Your task to perform on an android device: turn off location Image 0: 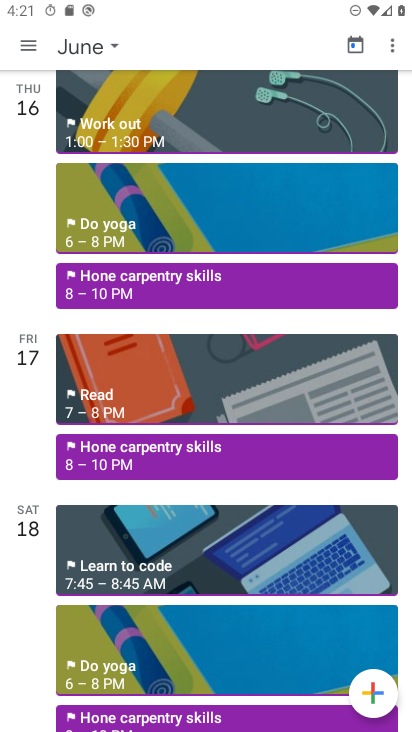
Step 0: press home button
Your task to perform on an android device: turn off location Image 1: 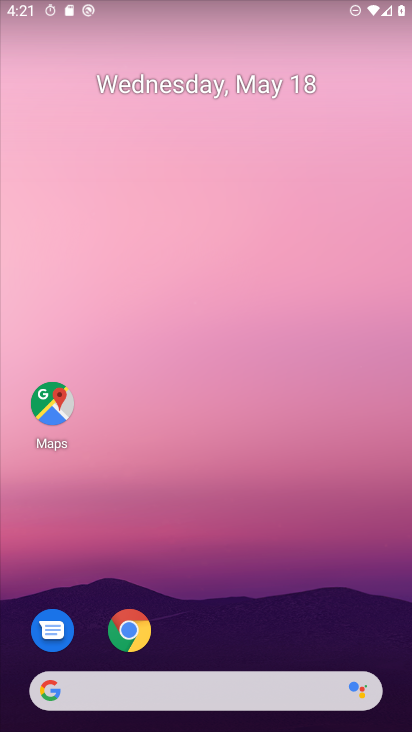
Step 1: drag from (222, 618) to (216, 31)
Your task to perform on an android device: turn off location Image 2: 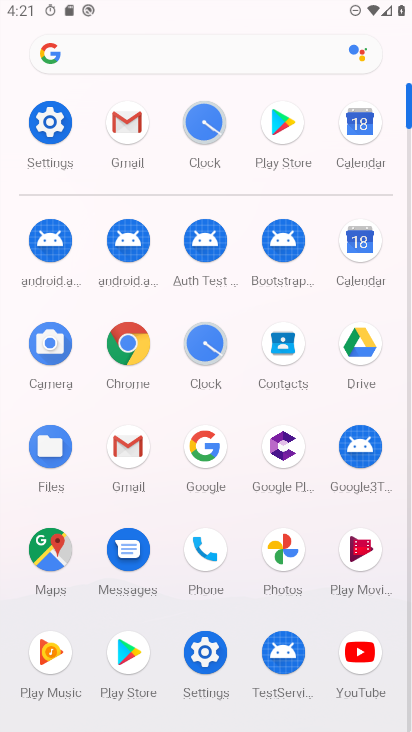
Step 2: click (50, 111)
Your task to perform on an android device: turn off location Image 3: 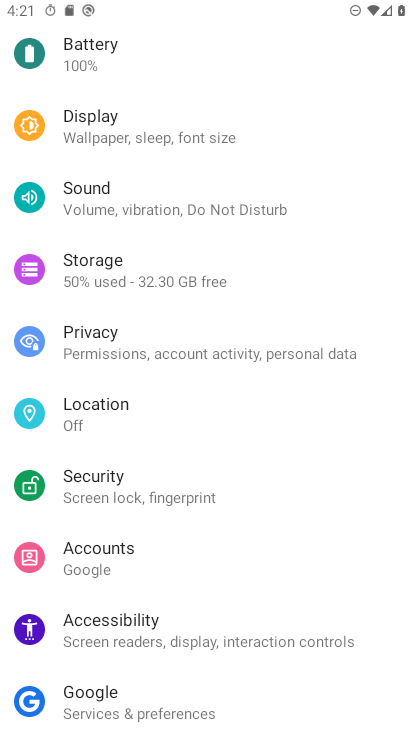
Step 3: click (132, 409)
Your task to perform on an android device: turn off location Image 4: 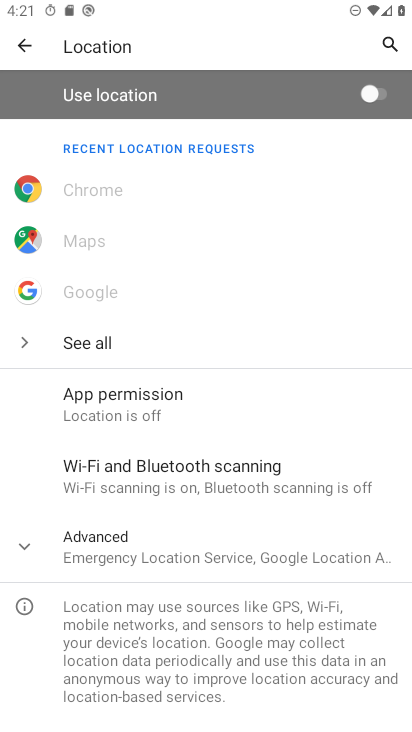
Step 4: task complete